Your task to perform on an android device: Go to Yahoo.com Image 0: 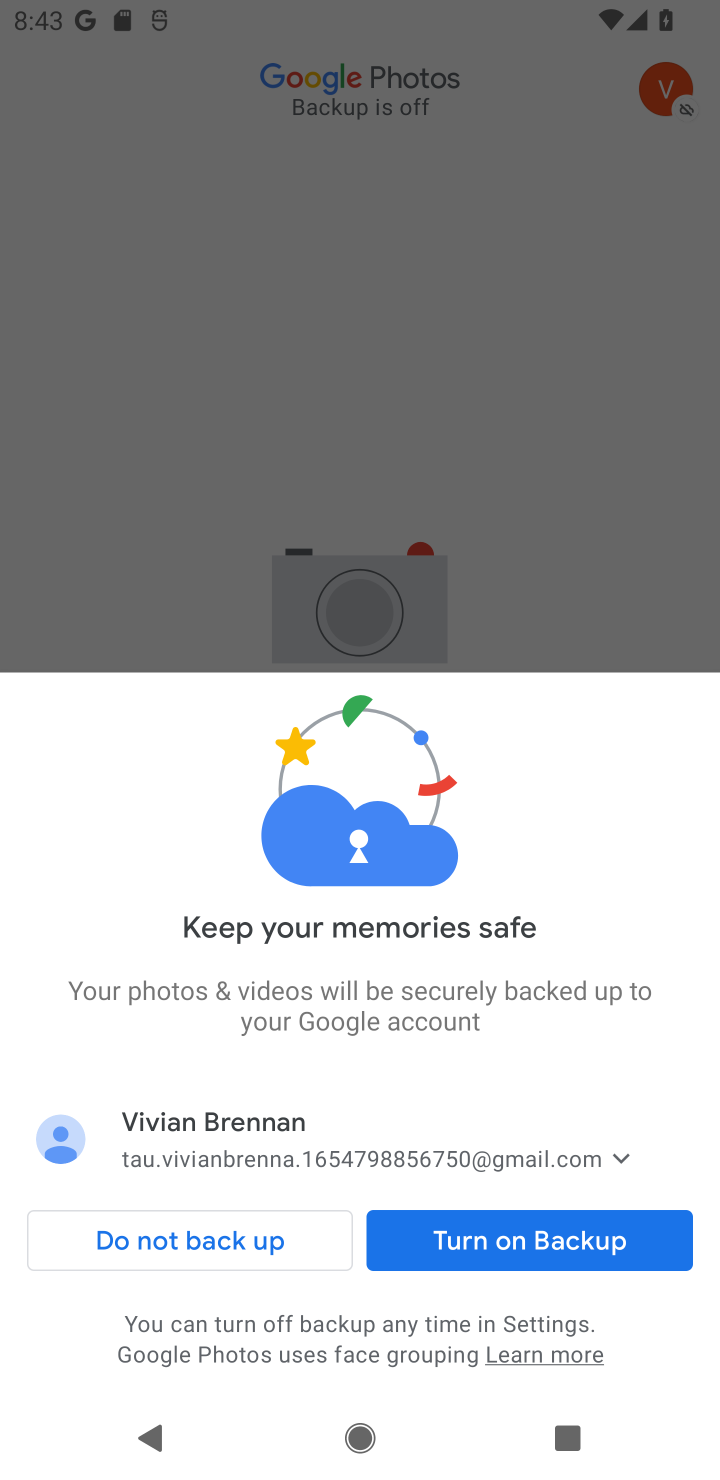
Step 0: press home button
Your task to perform on an android device: Go to Yahoo.com Image 1: 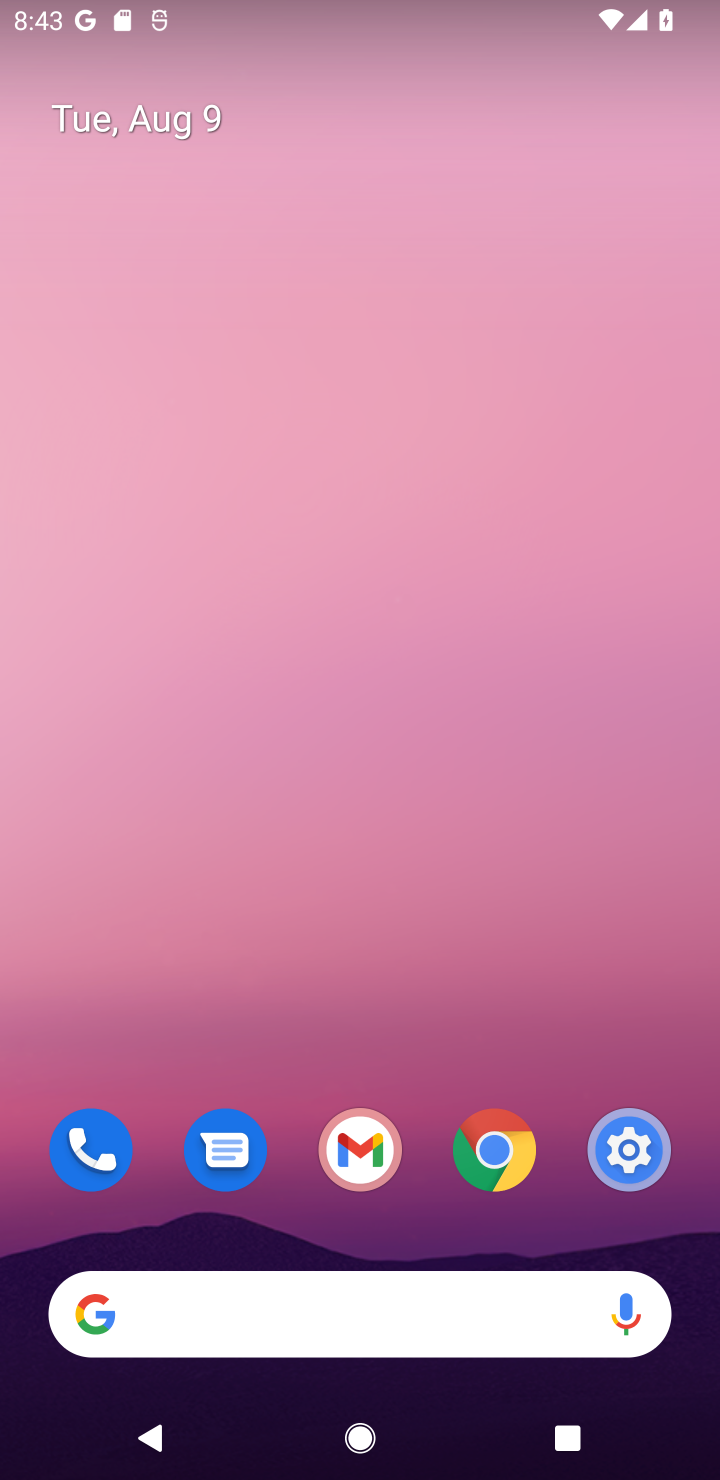
Step 1: drag from (377, 1130) to (388, 229)
Your task to perform on an android device: Go to Yahoo.com Image 2: 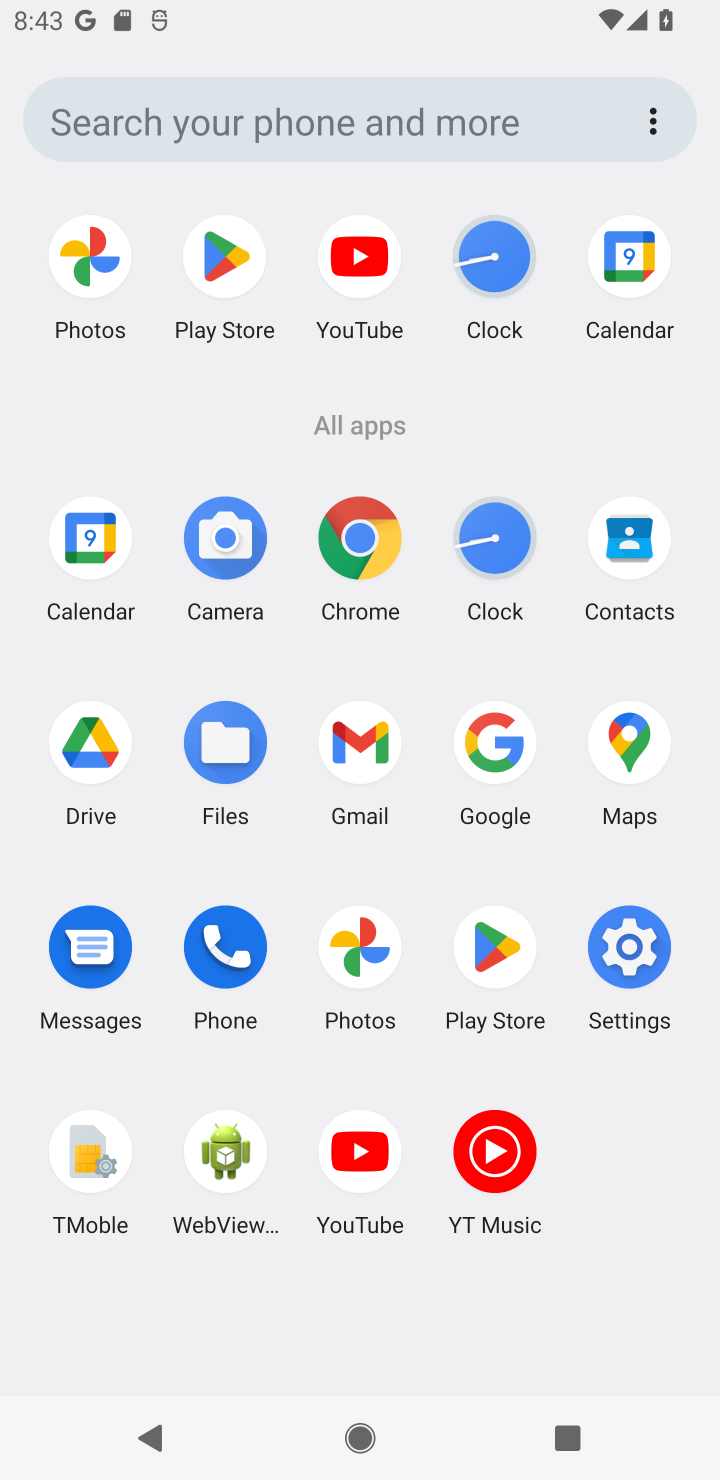
Step 2: click (374, 587)
Your task to perform on an android device: Go to Yahoo.com Image 3: 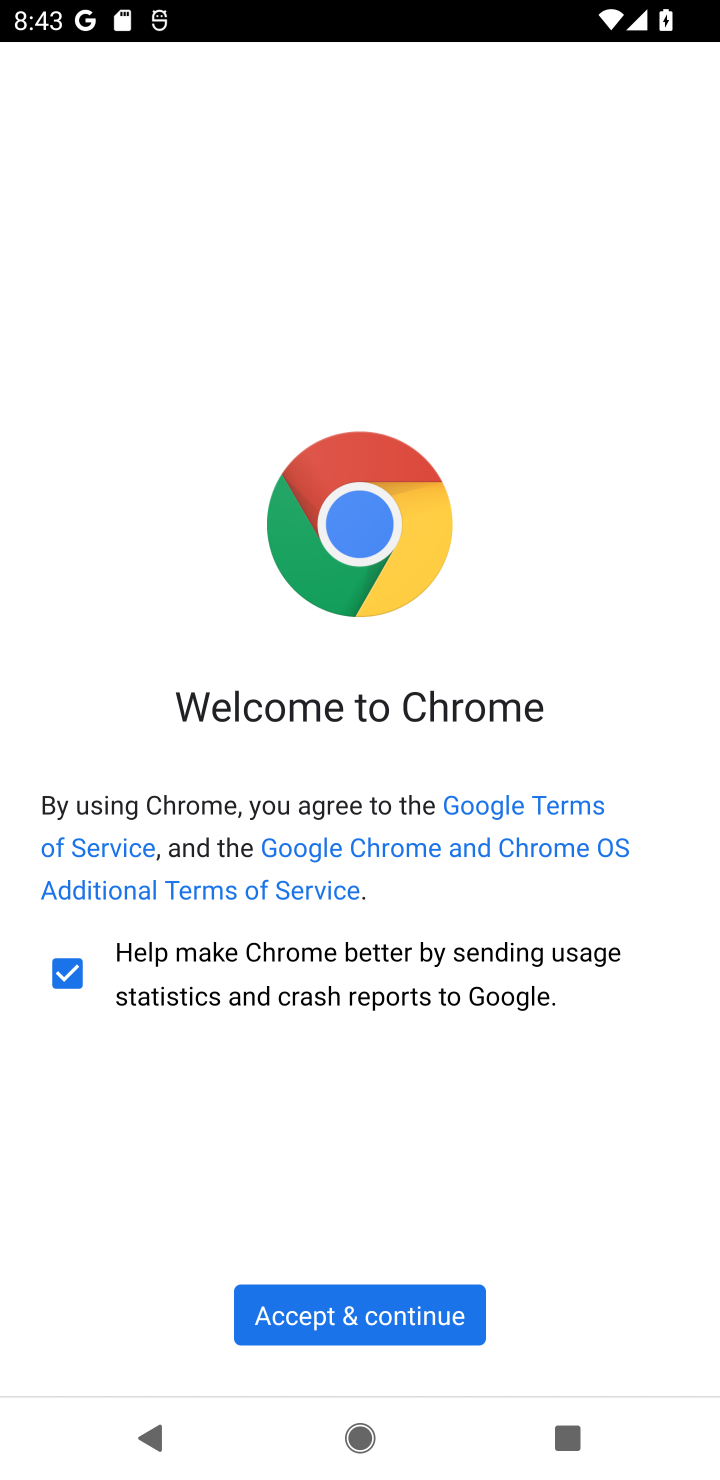
Step 3: click (337, 1329)
Your task to perform on an android device: Go to Yahoo.com Image 4: 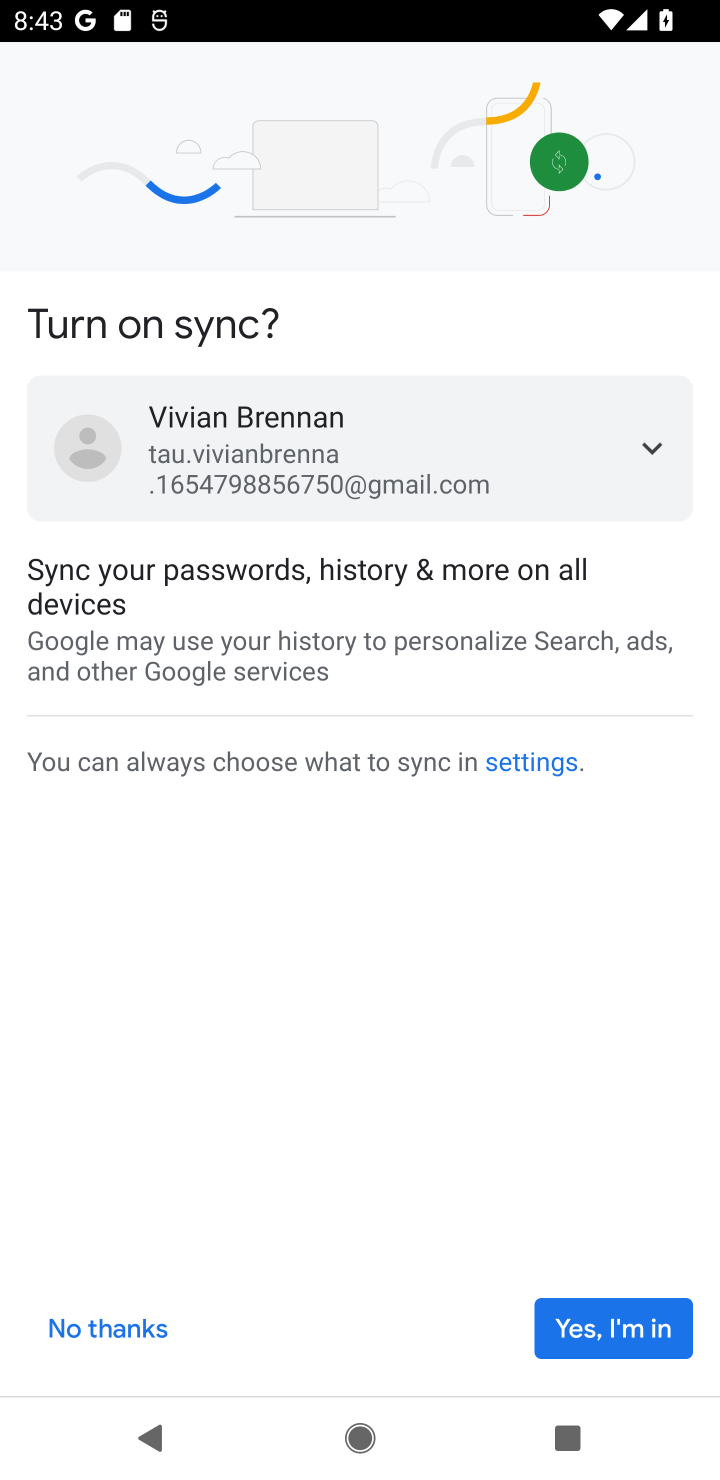
Step 4: click (577, 1324)
Your task to perform on an android device: Go to Yahoo.com Image 5: 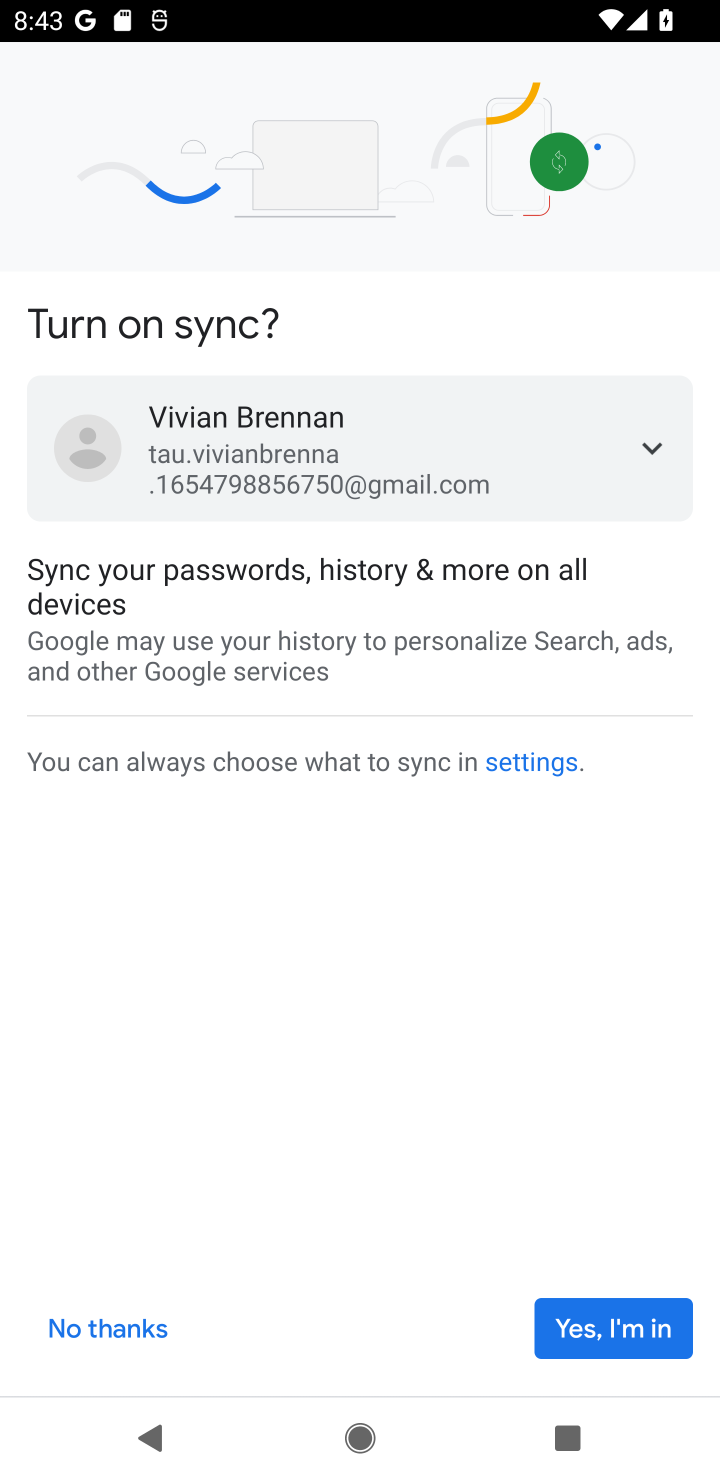
Step 5: click (580, 1336)
Your task to perform on an android device: Go to Yahoo.com Image 6: 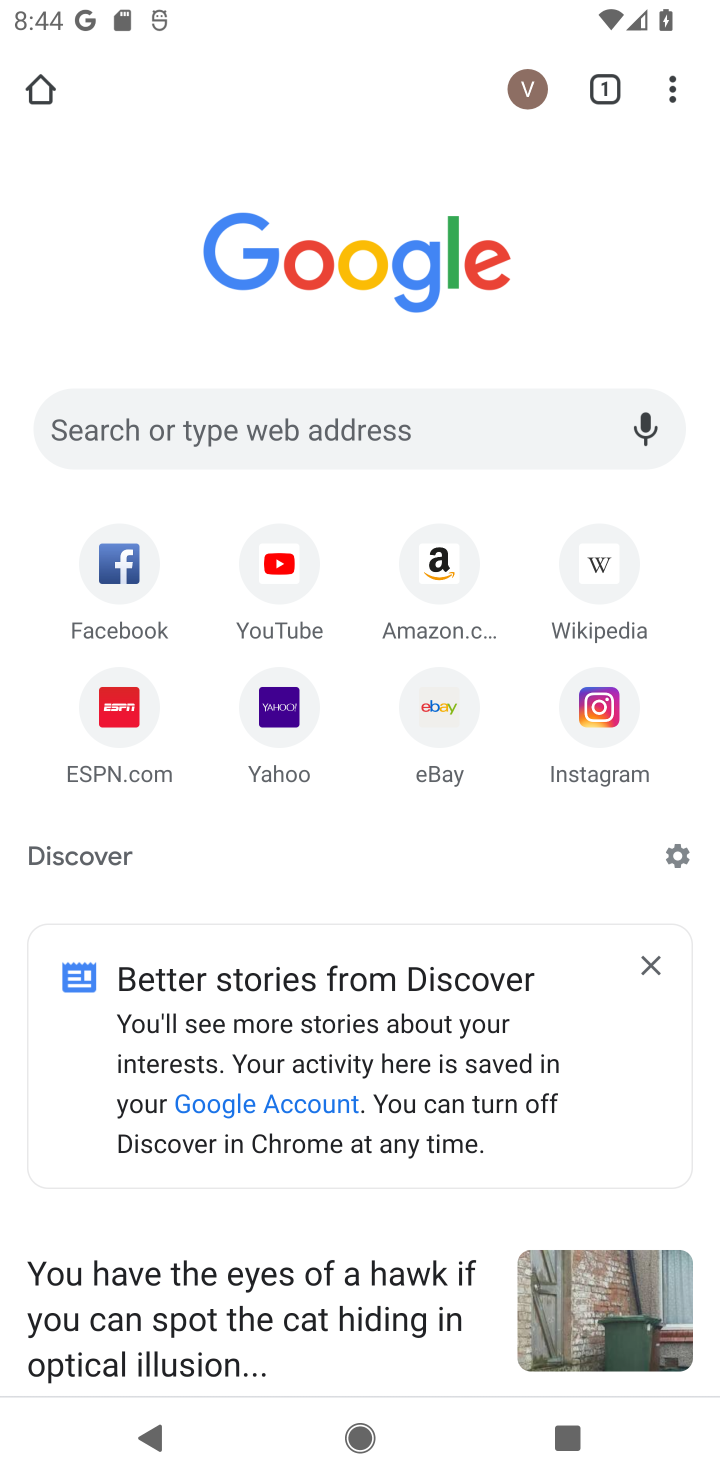
Step 6: click (291, 727)
Your task to perform on an android device: Go to Yahoo.com Image 7: 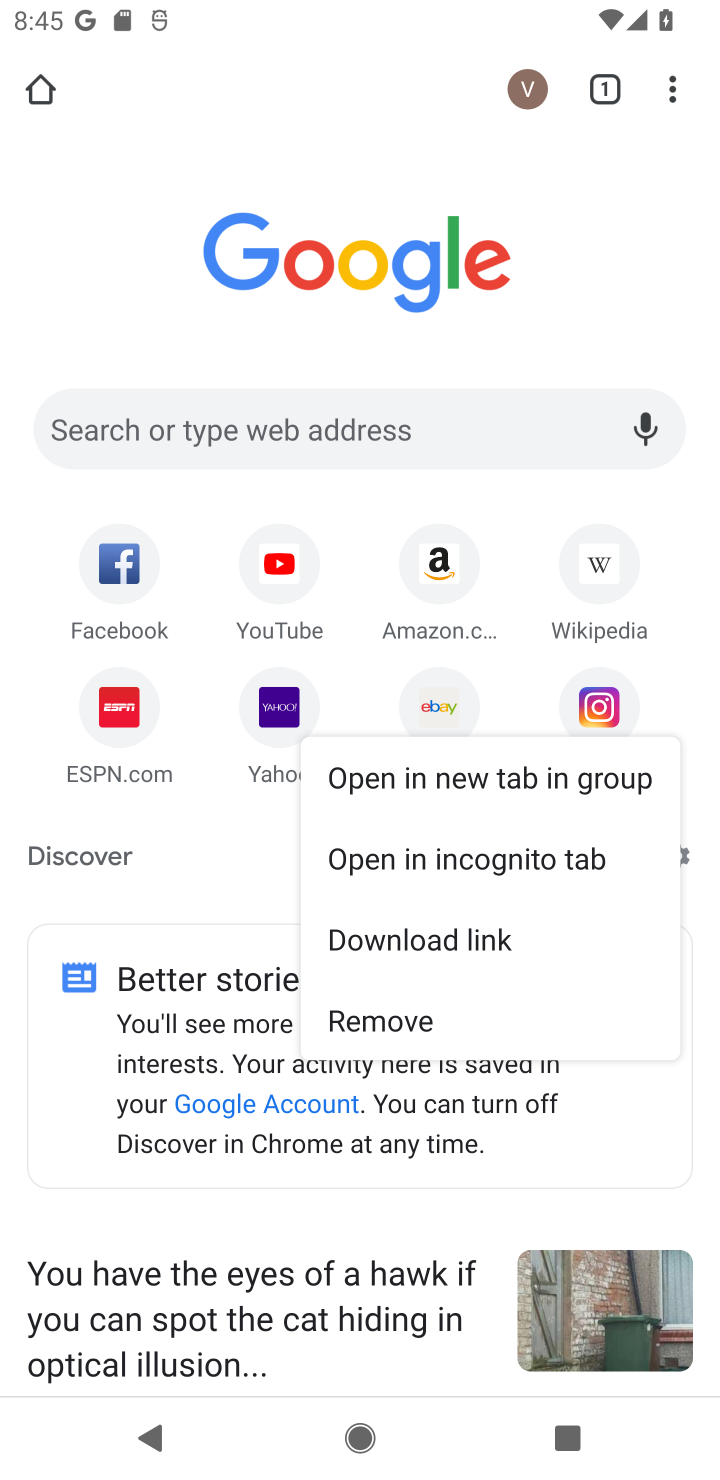
Step 7: click (264, 722)
Your task to perform on an android device: Go to Yahoo.com Image 8: 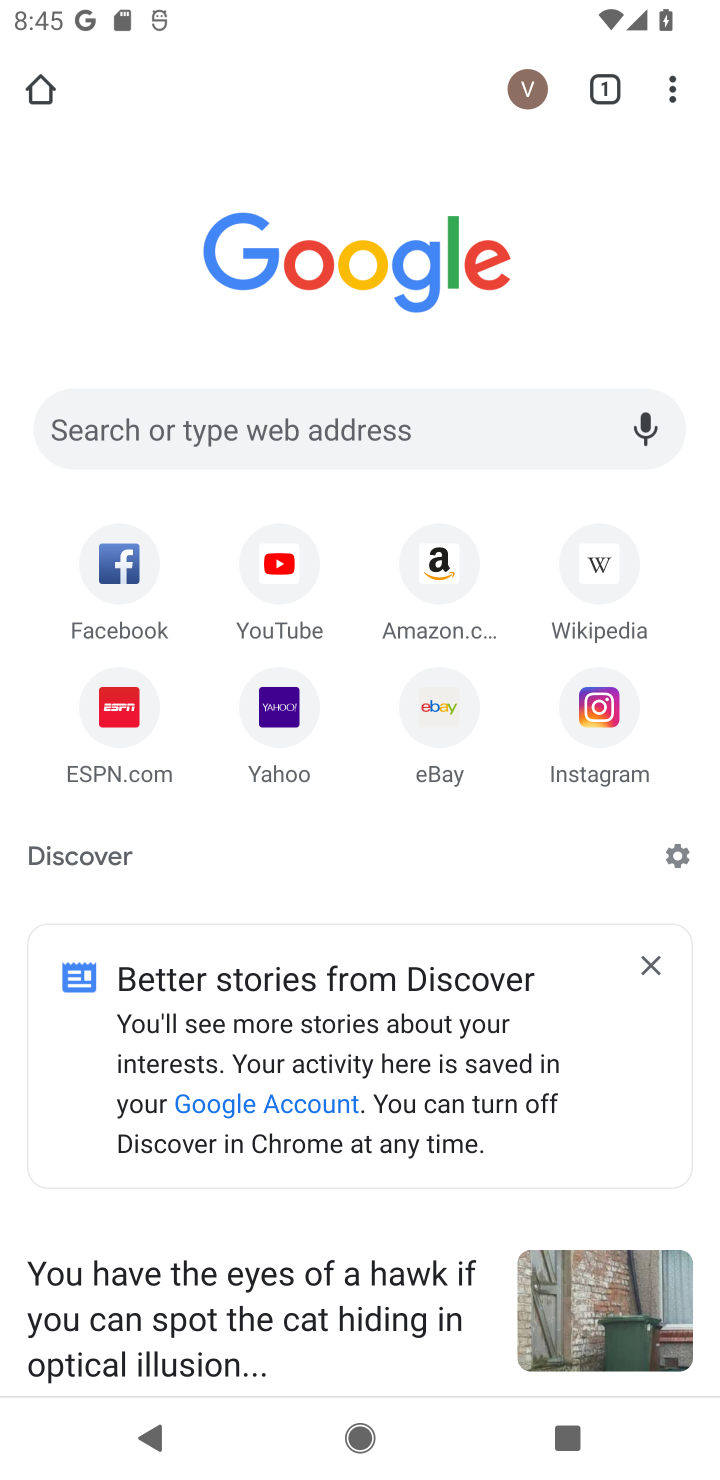
Step 8: click (281, 740)
Your task to perform on an android device: Go to Yahoo.com Image 9: 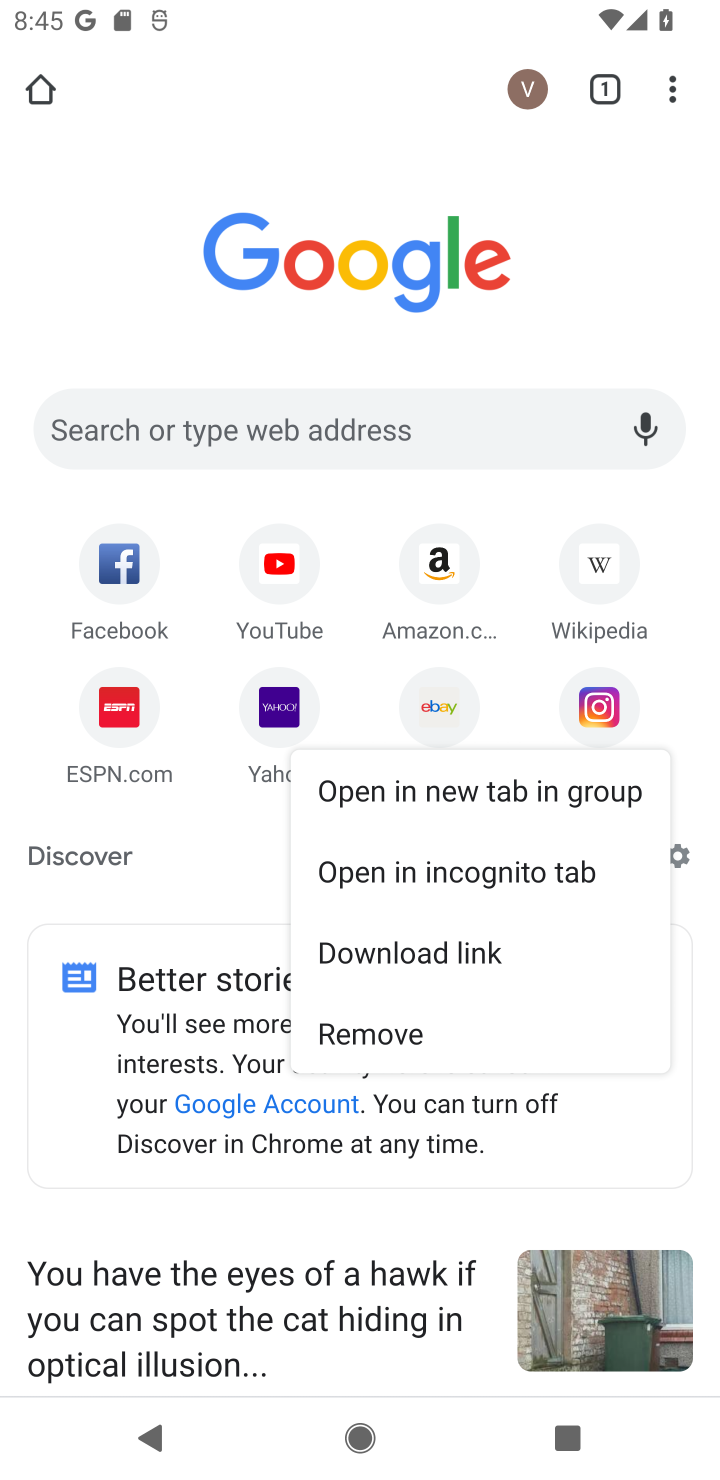
Step 9: click (246, 747)
Your task to perform on an android device: Go to Yahoo.com Image 10: 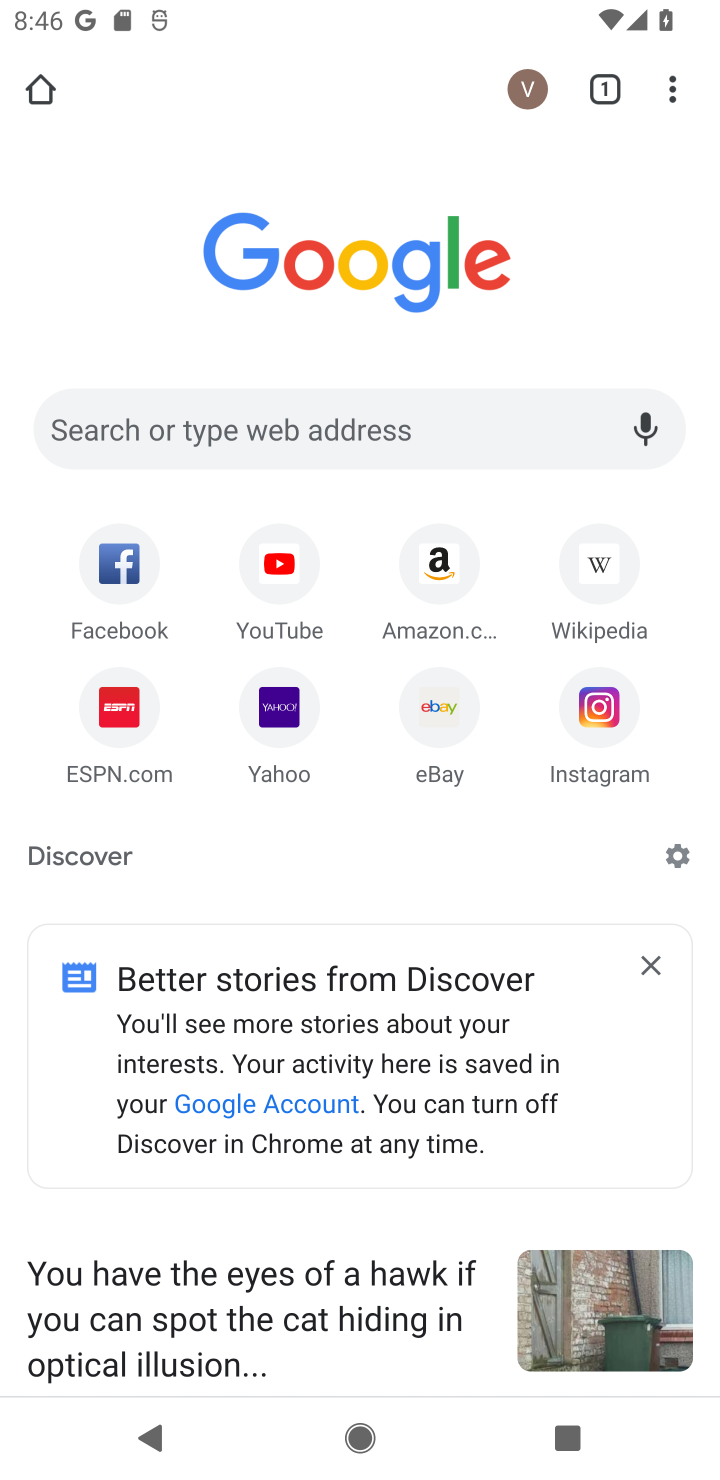
Step 10: click (262, 748)
Your task to perform on an android device: Go to Yahoo.com Image 11: 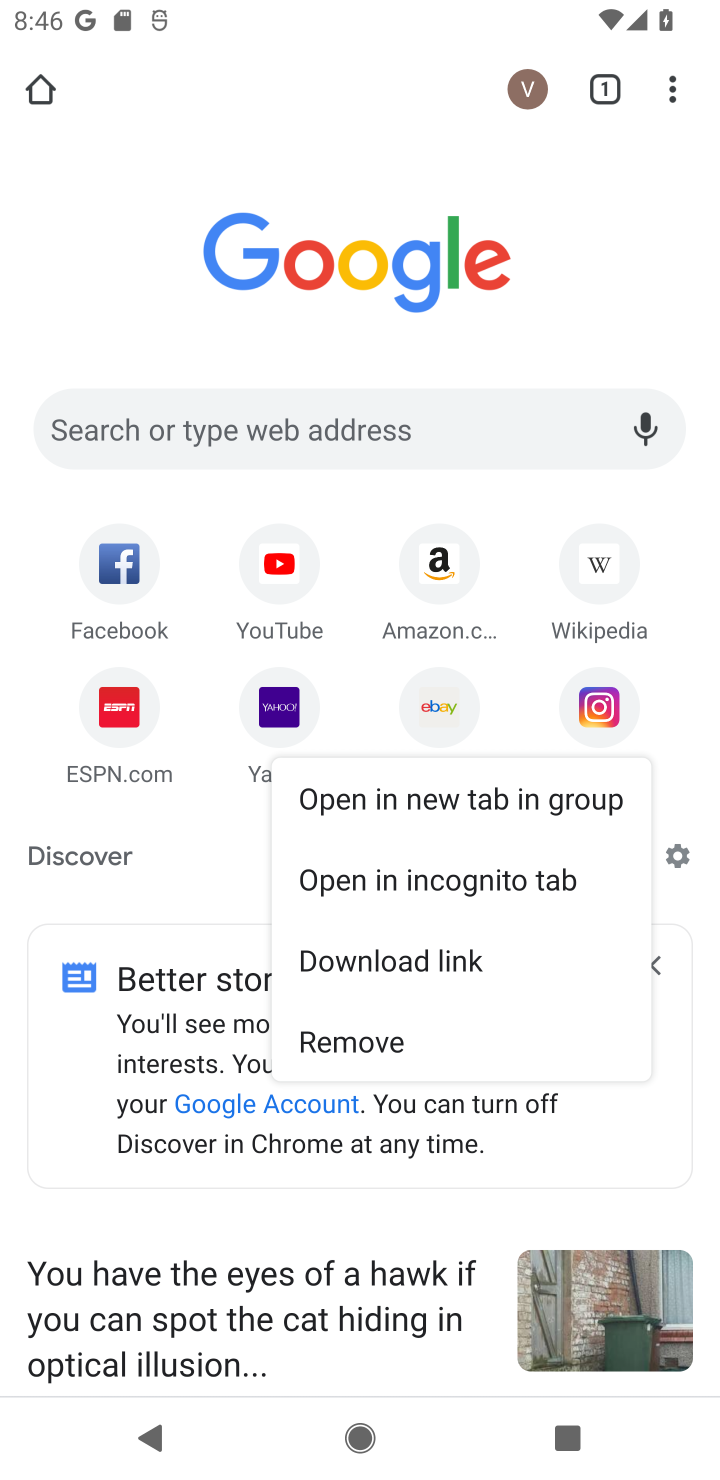
Step 11: task complete